Your task to perform on an android device: empty trash in google photos Image 0: 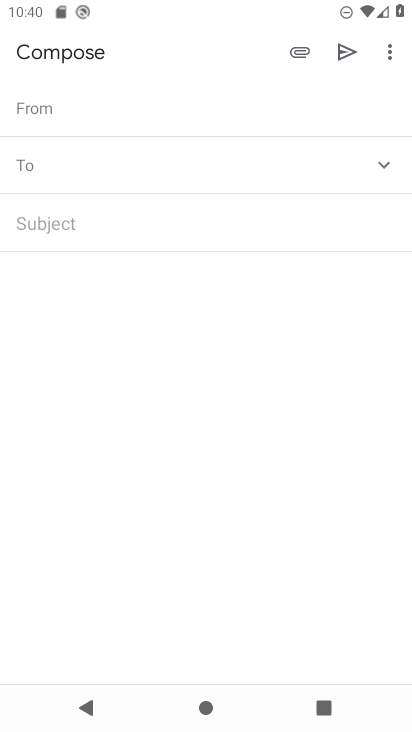
Step 0: click (139, 564)
Your task to perform on an android device: empty trash in google photos Image 1: 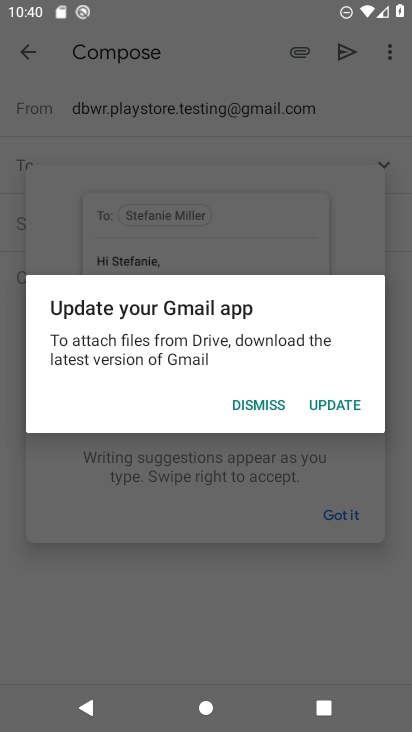
Step 1: press home button
Your task to perform on an android device: empty trash in google photos Image 2: 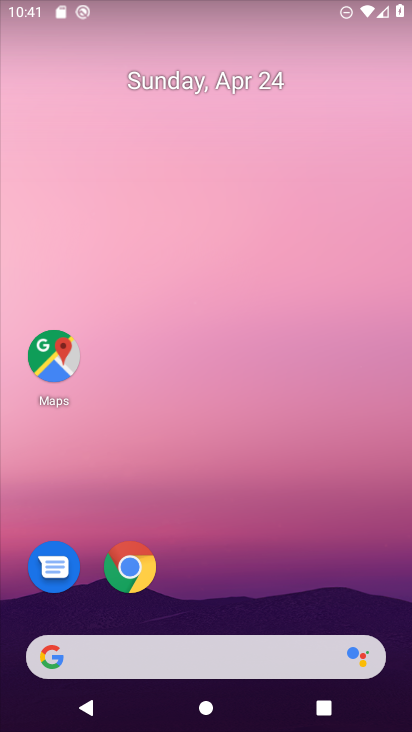
Step 2: drag from (157, 623) to (99, 165)
Your task to perform on an android device: empty trash in google photos Image 3: 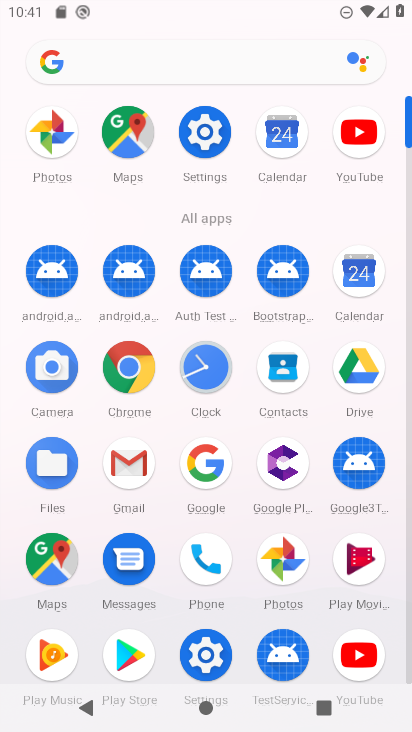
Step 3: click (273, 549)
Your task to perform on an android device: empty trash in google photos Image 4: 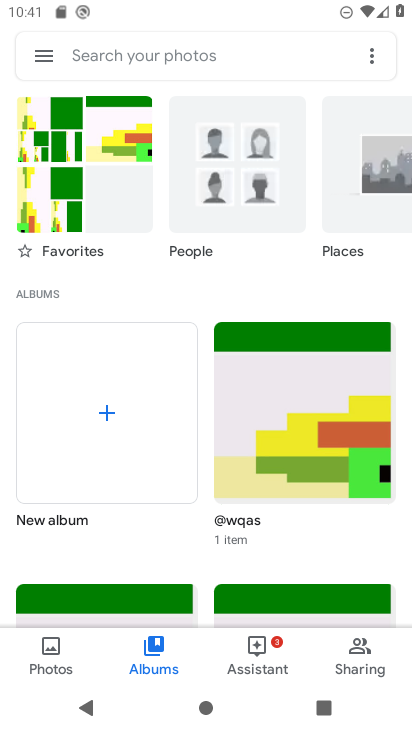
Step 4: click (45, 60)
Your task to perform on an android device: empty trash in google photos Image 5: 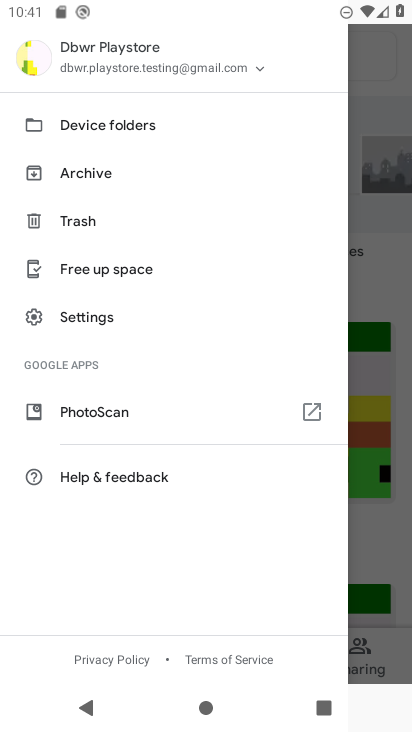
Step 5: click (80, 223)
Your task to perform on an android device: empty trash in google photos Image 6: 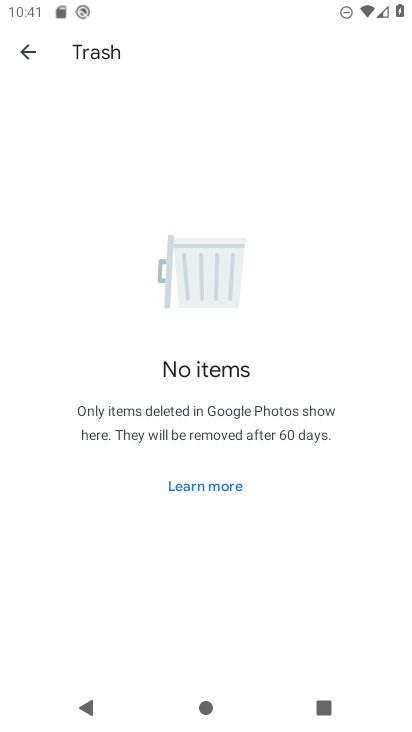
Step 6: task complete